Your task to perform on an android device: turn off picture-in-picture Image 0: 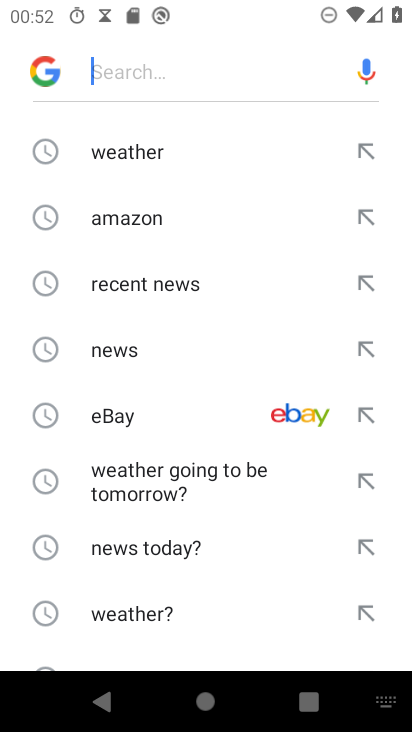
Step 0: press home button
Your task to perform on an android device: turn off picture-in-picture Image 1: 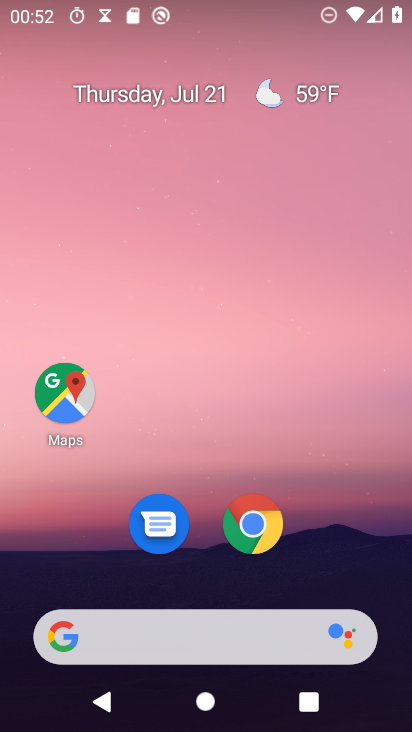
Step 1: click (249, 525)
Your task to perform on an android device: turn off picture-in-picture Image 2: 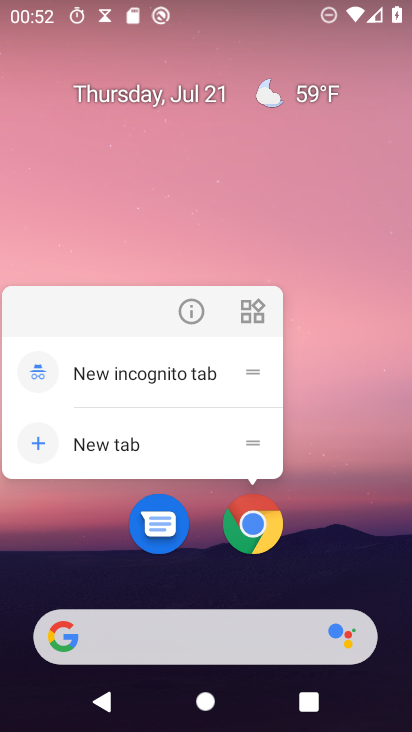
Step 2: click (193, 315)
Your task to perform on an android device: turn off picture-in-picture Image 3: 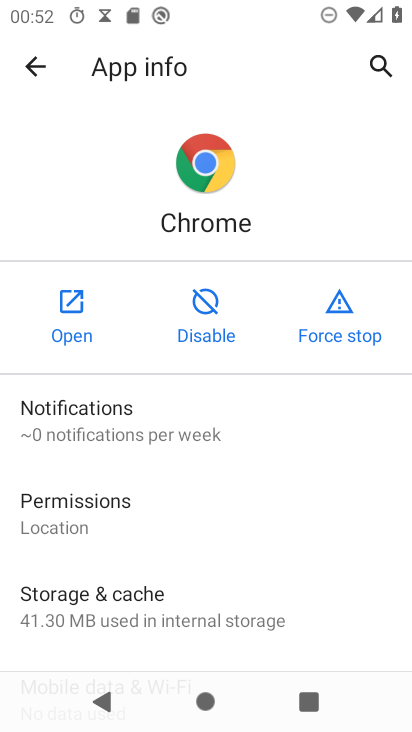
Step 3: drag from (212, 576) to (251, 76)
Your task to perform on an android device: turn off picture-in-picture Image 4: 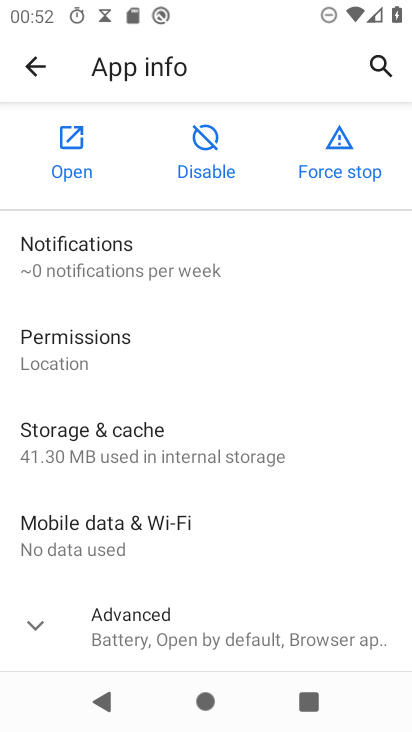
Step 4: click (154, 642)
Your task to perform on an android device: turn off picture-in-picture Image 5: 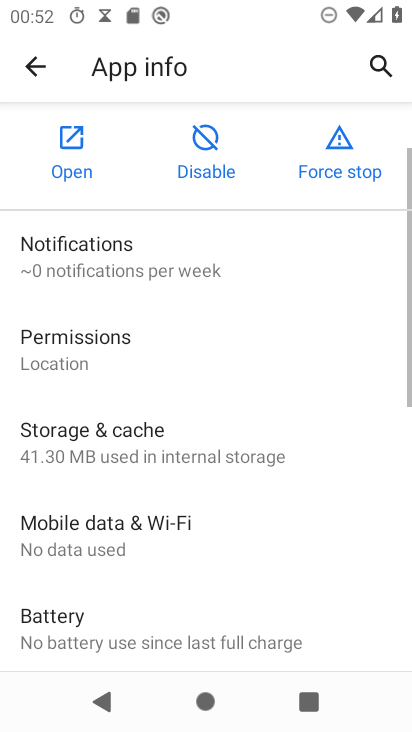
Step 5: drag from (232, 527) to (249, 15)
Your task to perform on an android device: turn off picture-in-picture Image 6: 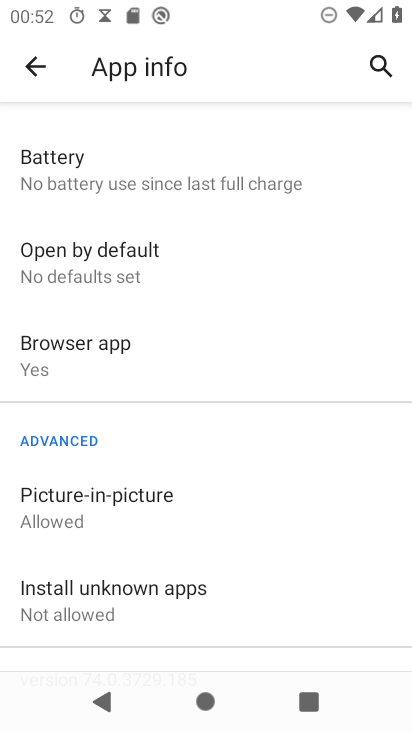
Step 6: click (103, 498)
Your task to perform on an android device: turn off picture-in-picture Image 7: 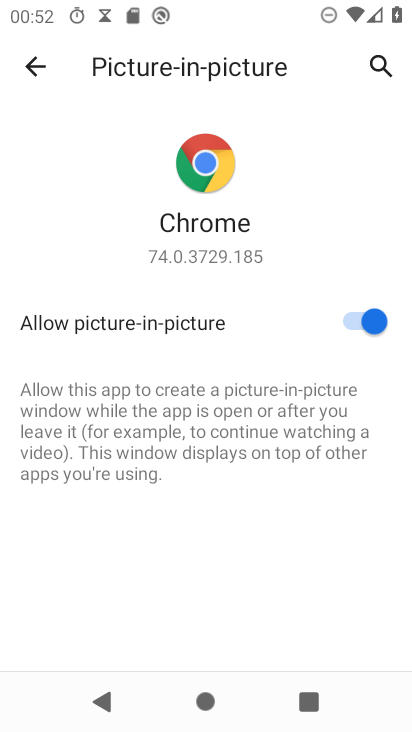
Step 7: click (355, 318)
Your task to perform on an android device: turn off picture-in-picture Image 8: 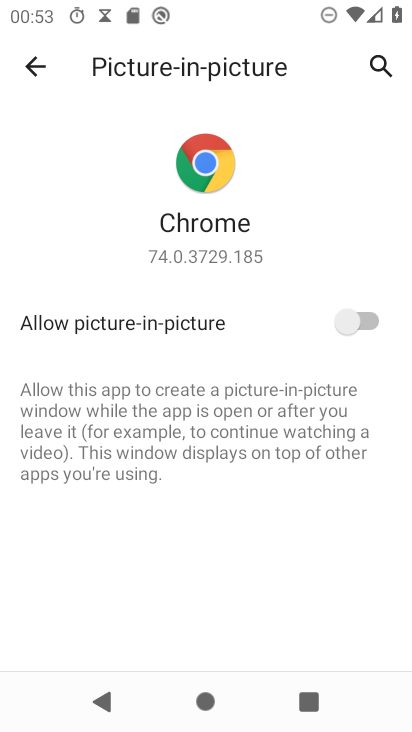
Step 8: task complete